Your task to perform on an android device: Search for sushi restaurants on Maps Image 0: 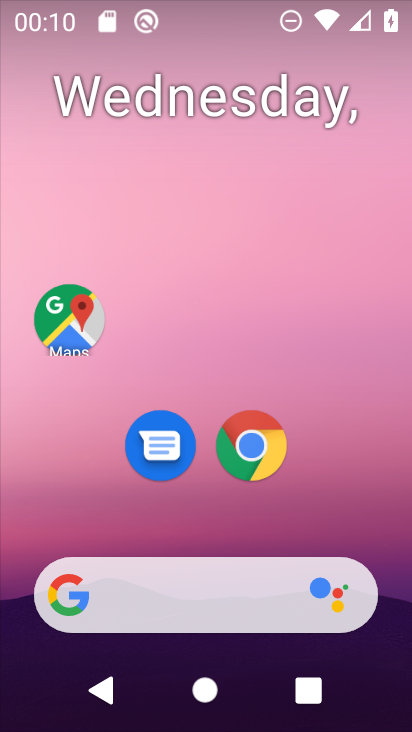
Step 0: click (60, 328)
Your task to perform on an android device: Search for sushi restaurants on Maps Image 1: 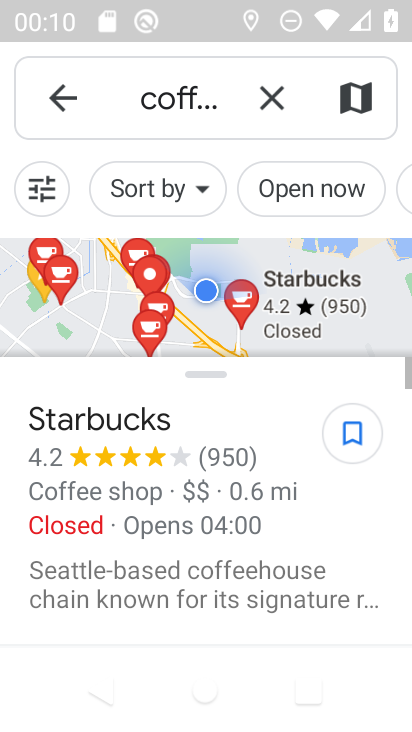
Step 1: click (272, 98)
Your task to perform on an android device: Search for sushi restaurants on Maps Image 2: 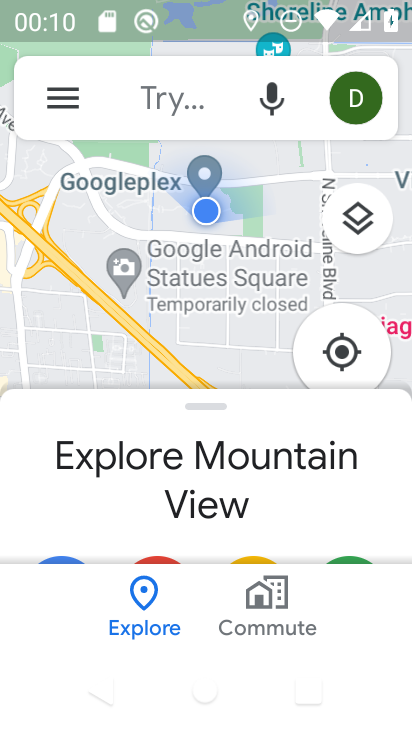
Step 2: click (173, 110)
Your task to perform on an android device: Search for sushi restaurants on Maps Image 3: 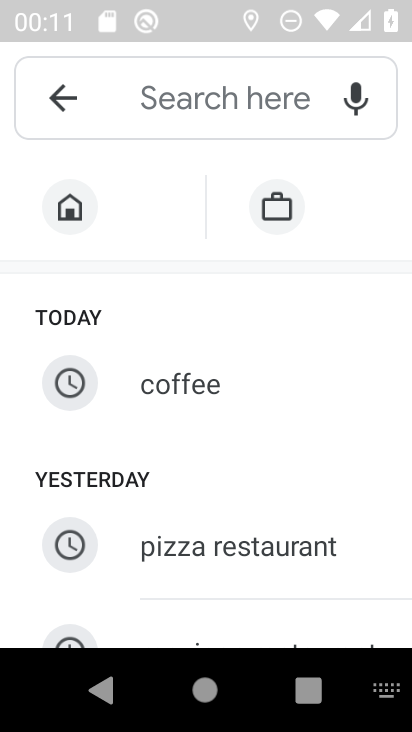
Step 3: type "sushi restaurant"
Your task to perform on an android device: Search for sushi restaurants on Maps Image 4: 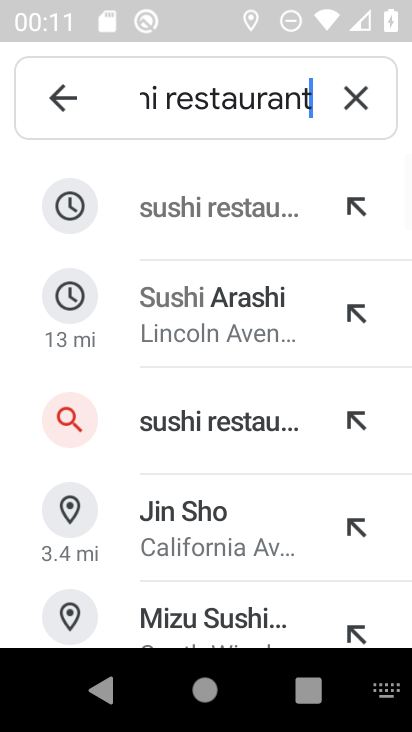
Step 4: click (225, 224)
Your task to perform on an android device: Search for sushi restaurants on Maps Image 5: 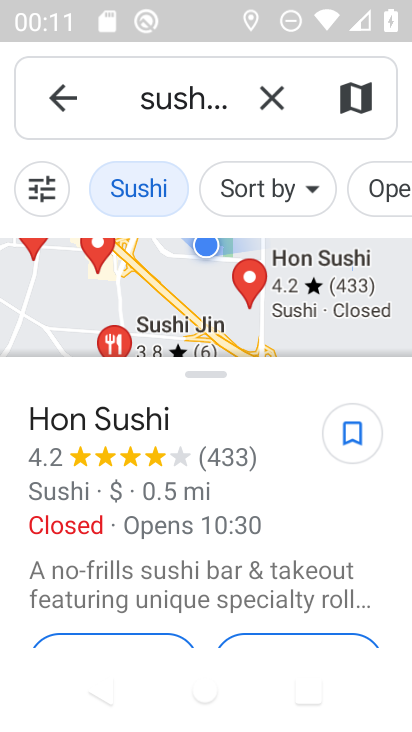
Step 5: task complete